Your task to perform on an android device: turn on sleep mode Image 0: 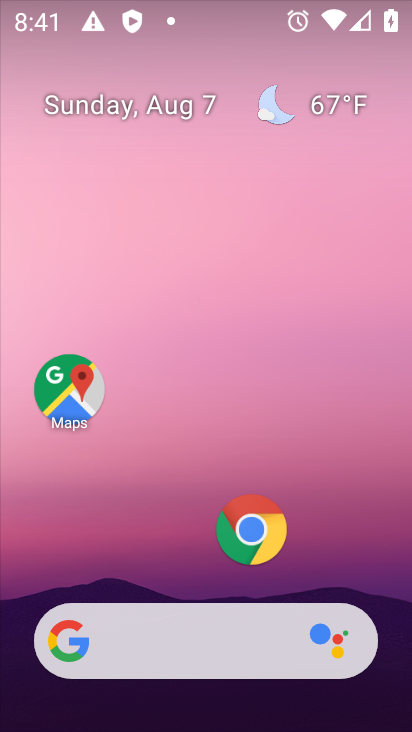
Step 0: drag from (168, 501) to (150, 40)
Your task to perform on an android device: turn on sleep mode Image 1: 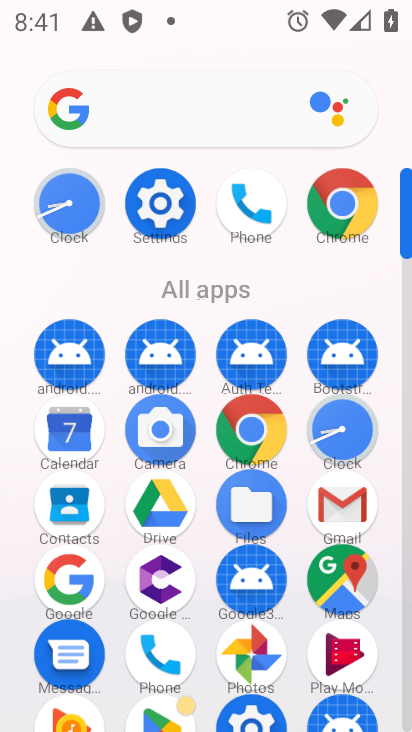
Step 1: click (161, 233)
Your task to perform on an android device: turn on sleep mode Image 2: 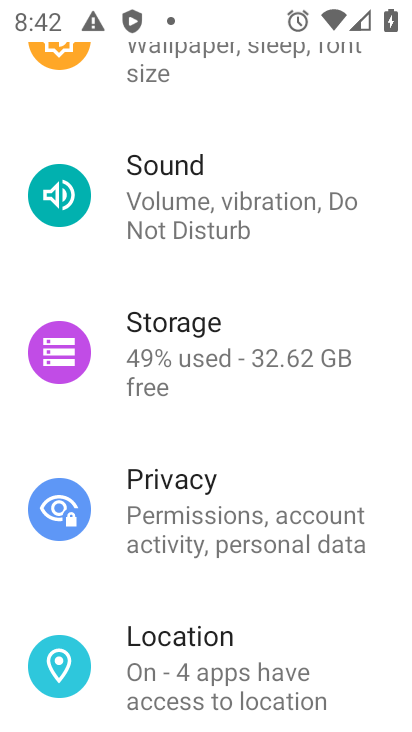
Step 2: drag from (171, 260) to (167, 618)
Your task to perform on an android device: turn on sleep mode Image 3: 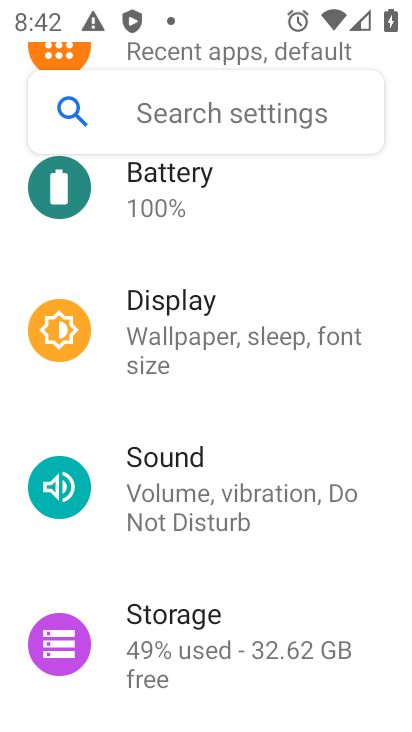
Step 3: click (184, 124)
Your task to perform on an android device: turn on sleep mode Image 4: 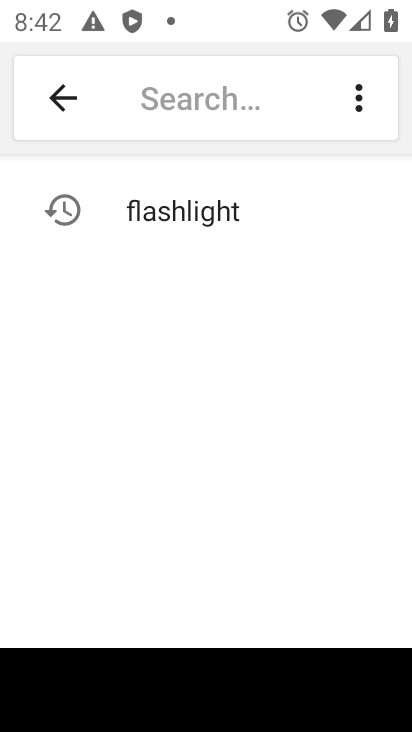
Step 4: type "sleep mode"
Your task to perform on an android device: turn on sleep mode Image 5: 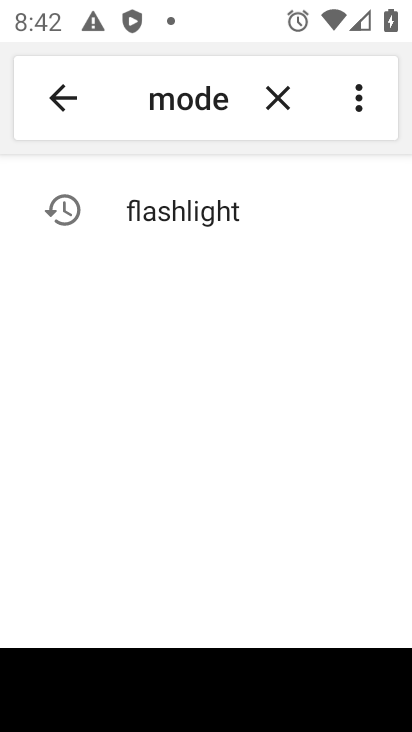
Step 5: click (278, 276)
Your task to perform on an android device: turn on sleep mode Image 6: 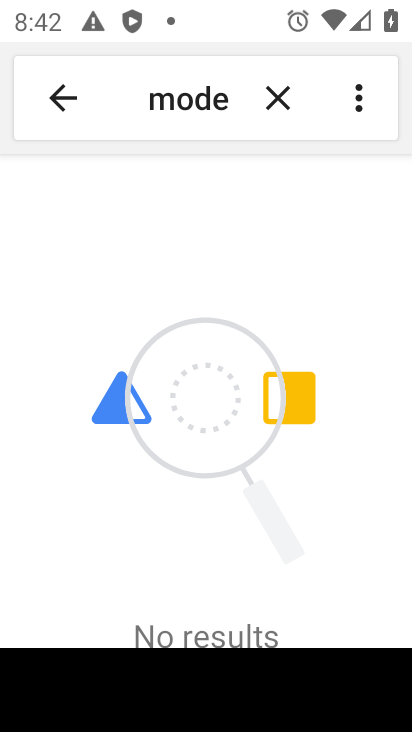
Step 6: task complete